Your task to perform on an android device: Open settings on Google Maps Image 0: 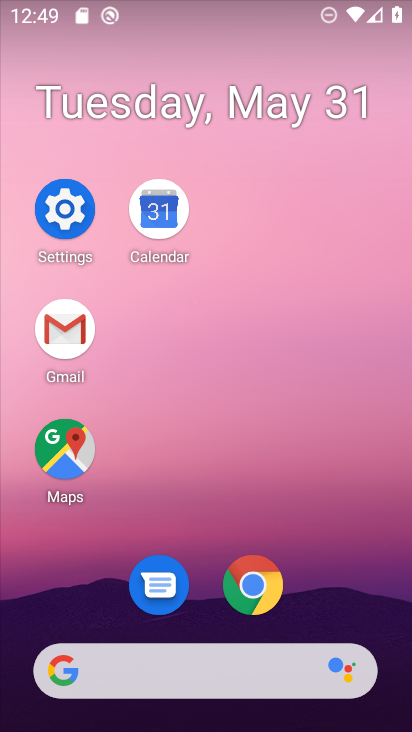
Step 0: click (54, 459)
Your task to perform on an android device: Open settings on Google Maps Image 1: 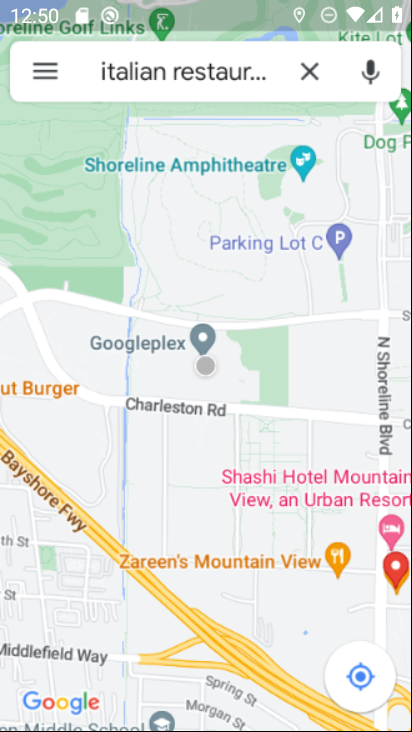
Step 1: click (50, 58)
Your task to perform on an android device: Open settings on Google Maps Image 2: 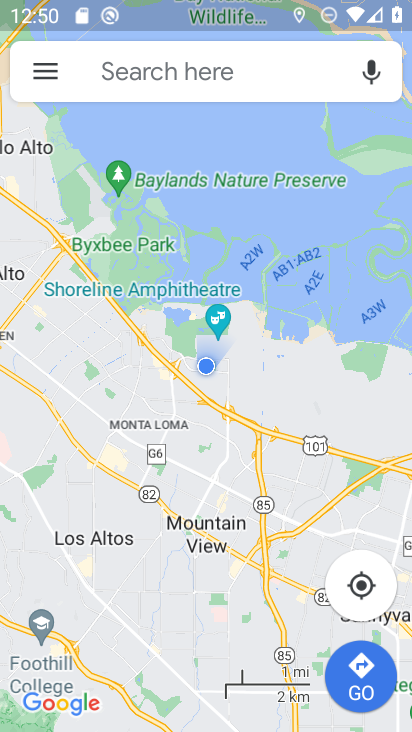
Step 2: click (45, 92)
Your task to perform on an android device: Open settings on Google Maps Image 3: 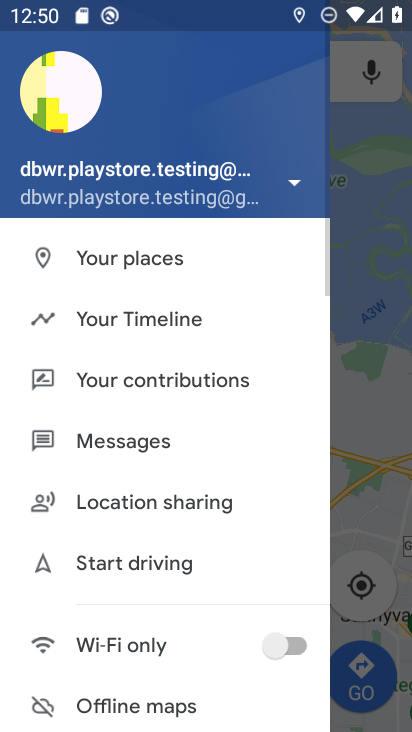
Step 3: drag from (138, 664) to (199, 269)
Your task to perform on an android device: Open settings on Google Maps Image 4: 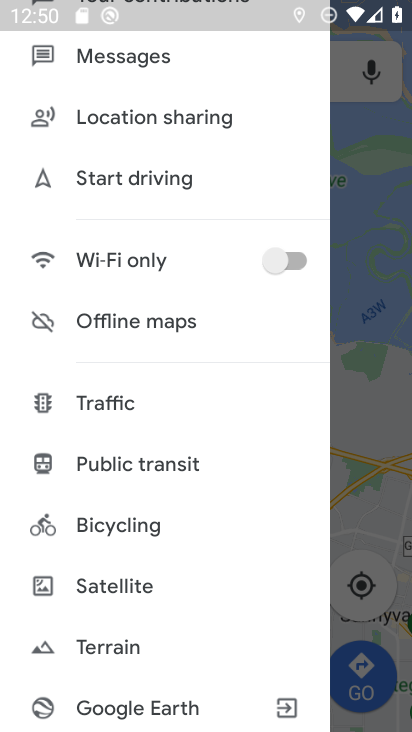
Step 4: drag from (131, 638) to (140, 278)
Your task to perform on an android device: Open settings on Google Maps Image 5: 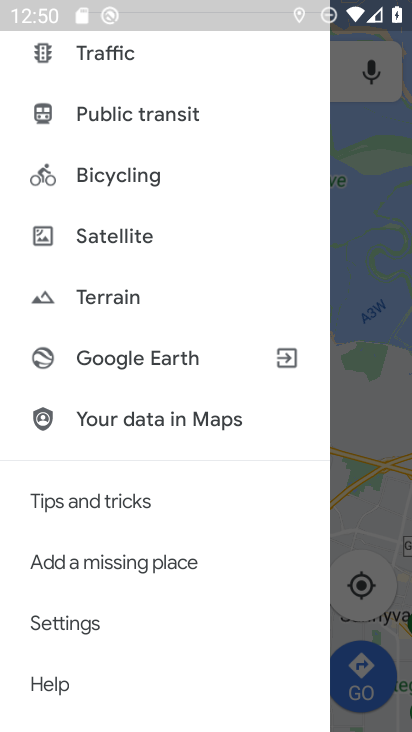
Step 5: click (102, 617)
Your task to perform on an android device: Open settings on Google Maps Image 6: 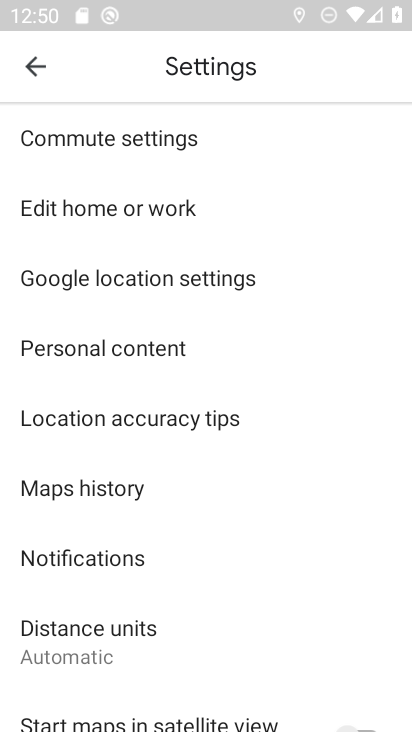
Step 6: task complete